Your task to perform on an android device: Go to internet settings Image 0: 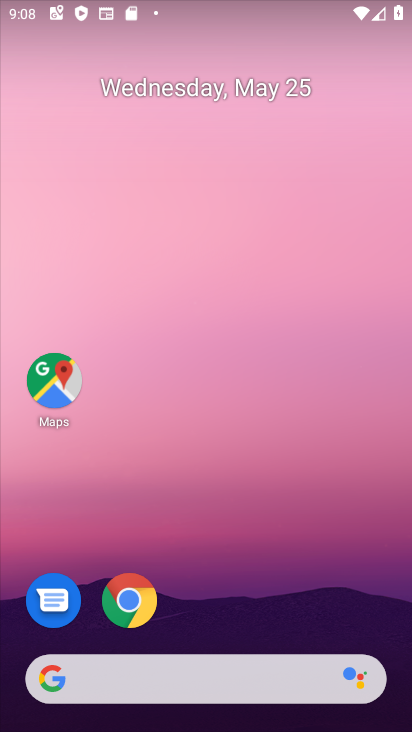
Step 0: drag from (226, 612) to (174, 17)
Your task to perform on an android device: Go to internet settings Image 1: 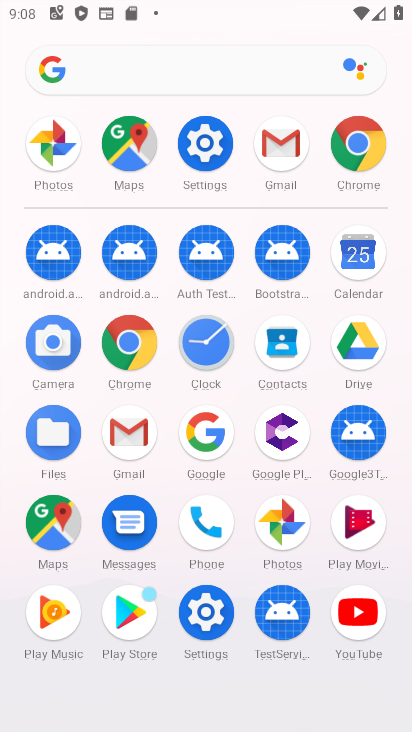
Step 1: click (205, 609)
Your task to perform on an android device: Go to internet settings Image 2: 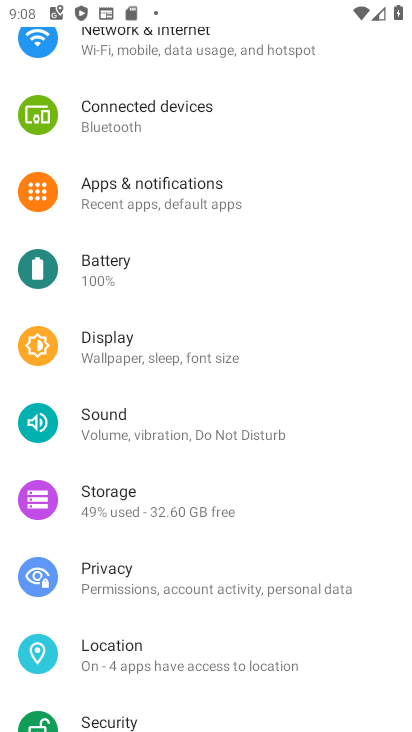
Step 2: drag from (241, 128) to (257, 597)
Your task to perform on an android device: Go to internet settings Image 3: 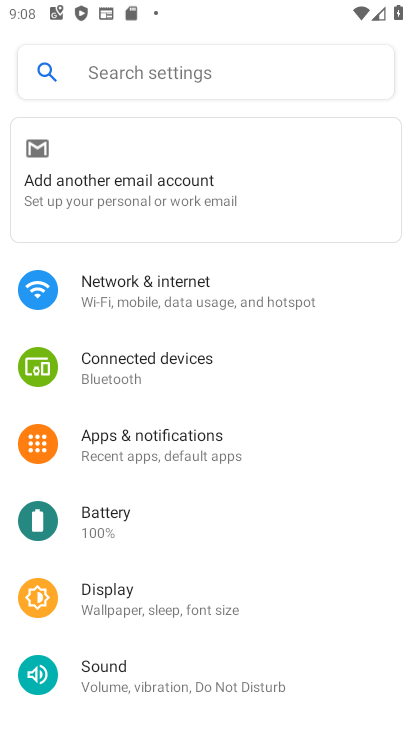
Step 3: click (208, 272)
Your task to perform on an android device: Go to internet settings Image 4: 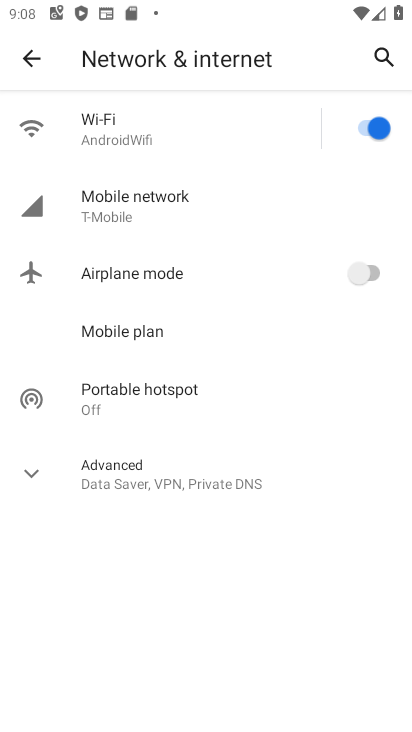
Step 4: click (49, 463)
Your task to perform on an android device: Go to internet settings Image 5: 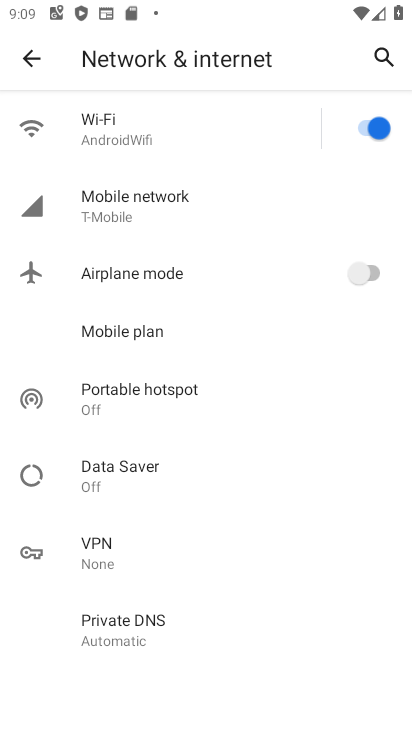
Step 5: task complete